Your task to perform on an android device: set default search engine in the chrome app Image 0: 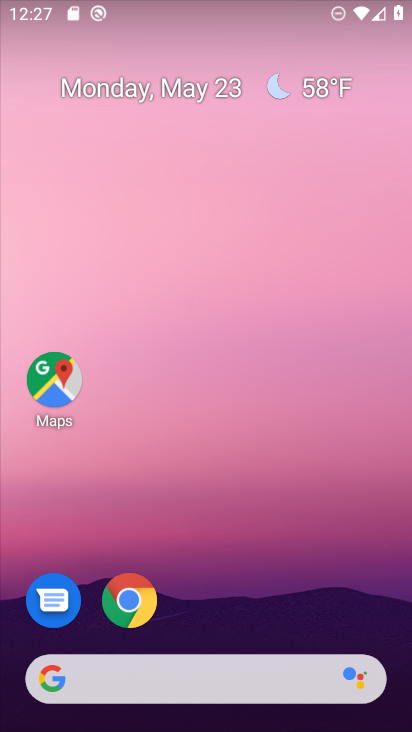
Step 0: drag from (323, 500) to (324, 50)
Your task to perform on an android device: set default search engine in the chrome app Image 1: 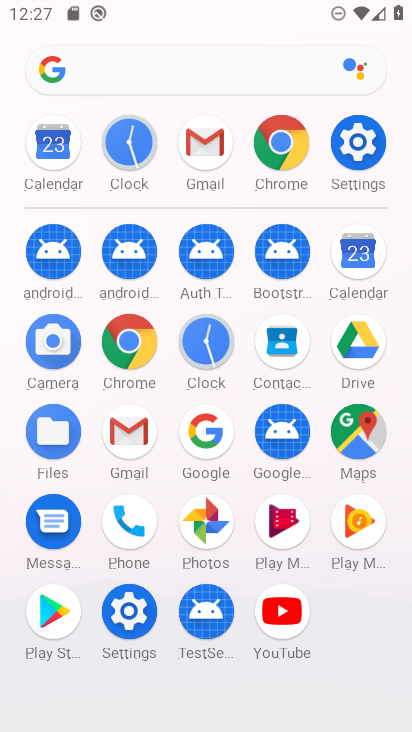
Step 1: click (301, 130)
Your task to perform on an android device: set default search engine in the chrome app Image 2: 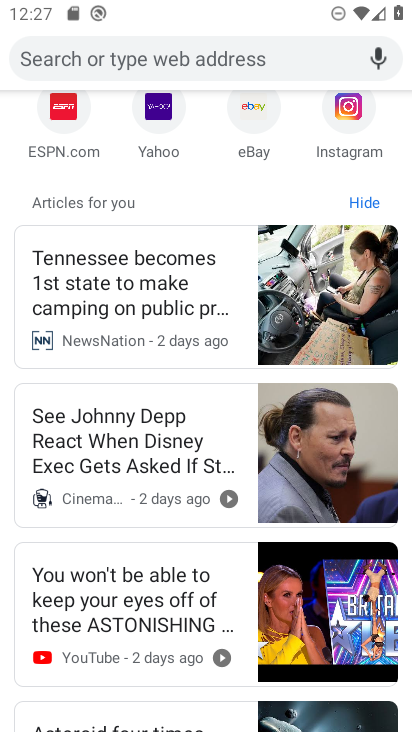
Step 2: drag from (362, 111) to (368, 582)
Your task to perform on an android device: set default search engine in the chrome app Image 3: 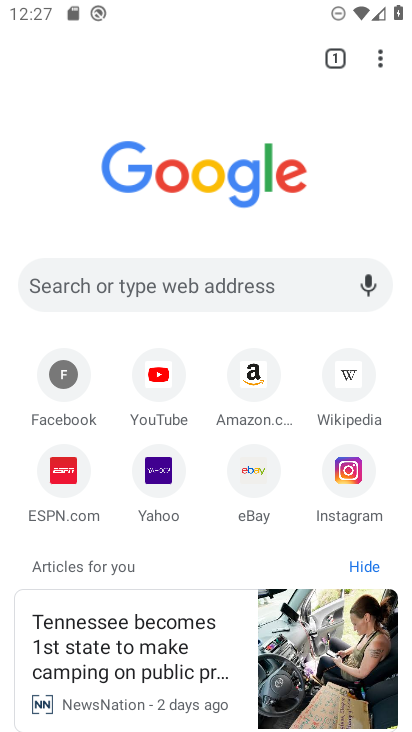
Step 3: drag from (389, 73) to (246, 479)
Your task to perform on an android device: set default search engine in the chrome app Image 4: 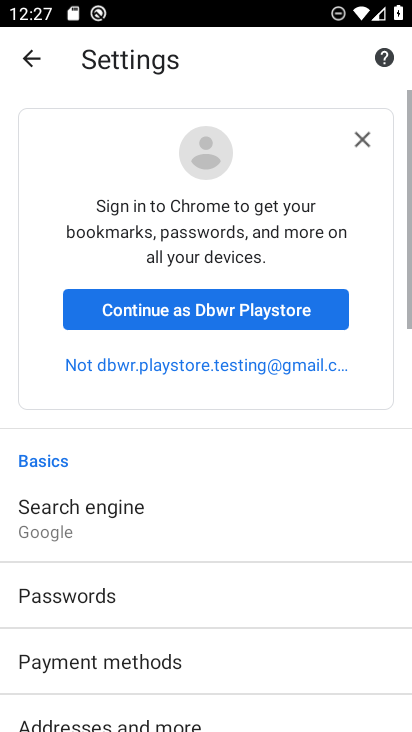
Step 4: click (157, 531)
Your task to perform on an android device: set default search engine in the chrome app Image 5: 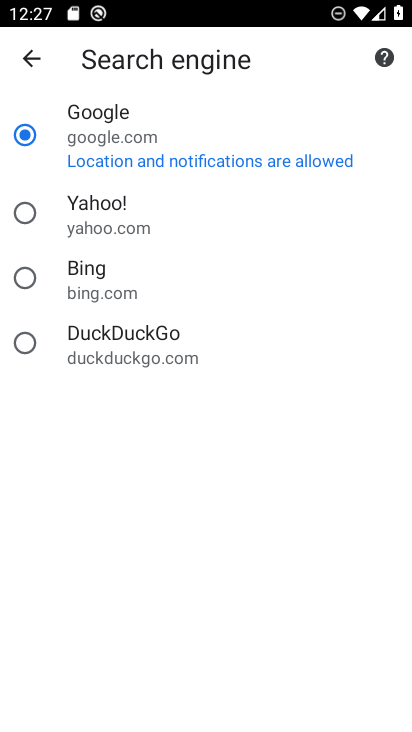
Step 5: task complete